Your task to perform on an android device: turn on bluetooth scan Image 0: 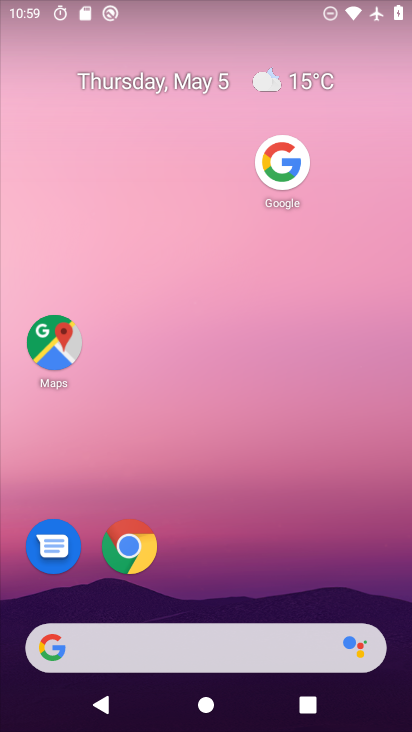
Step 0: drag from (185, 632) to (343, 45)
Your task to perform on an android device: turn on bluetooth scan Image 1: 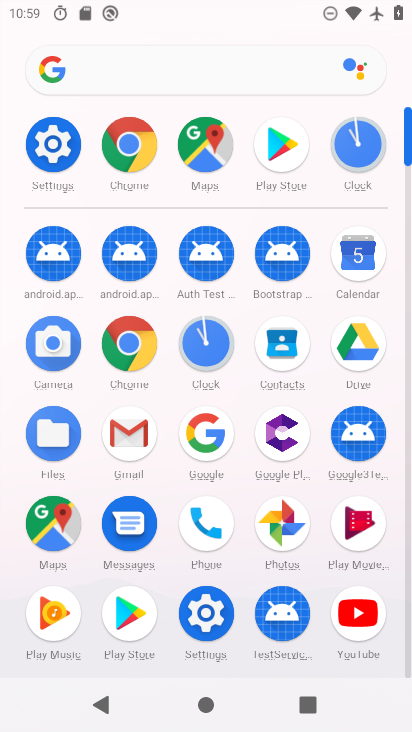
Step 1: click (54, 147)
Your task to perform on an android device: turn on bluetooth scan Image 2: 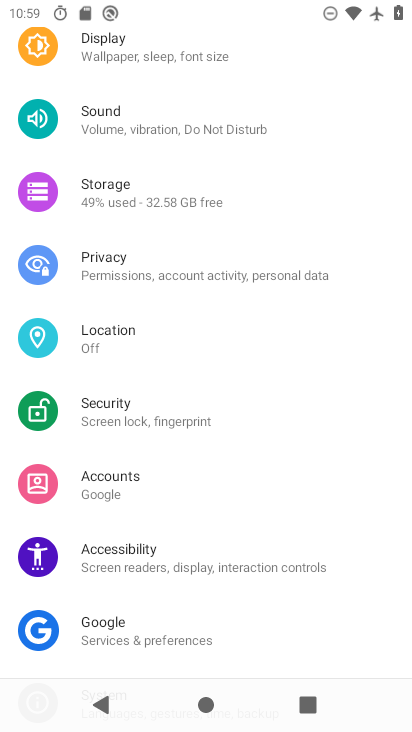
Step 2: drag from (212, 537) to (268, 382)
Your task to perform on an android device: turn on bluetooth scan Image 3: 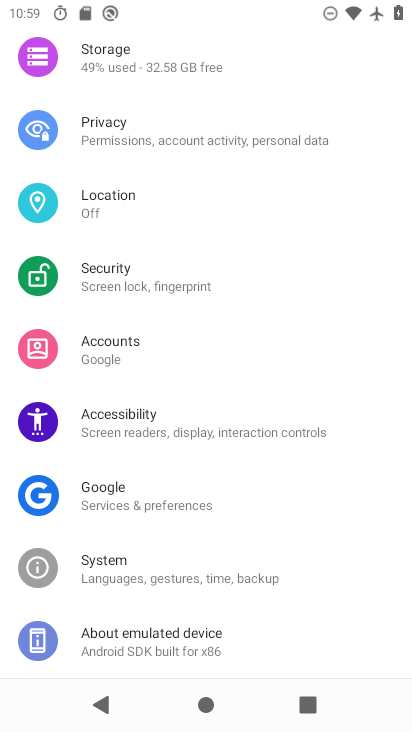
Step 3: click (110, 201)
Your task to perform on an android device: turn on bluetooth scan Image 4: 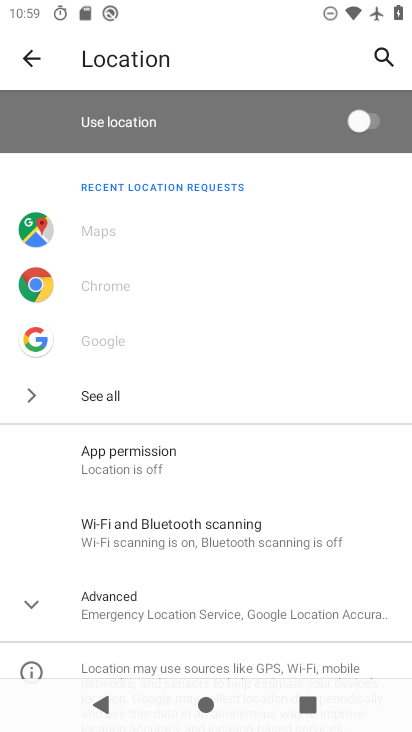
Step 4: click (173, 535)
Your task to perform on an android device: turn on bluetooth scan Image 5: 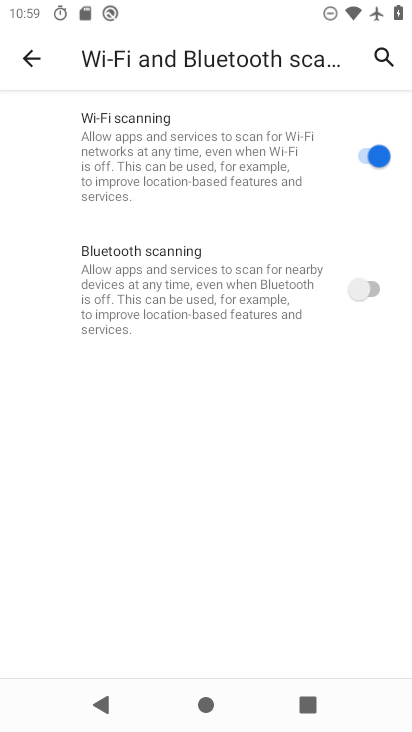
Step 5: click (375, 282)
Your task to perform on an android device: turn on bluetooth scan Image 6: 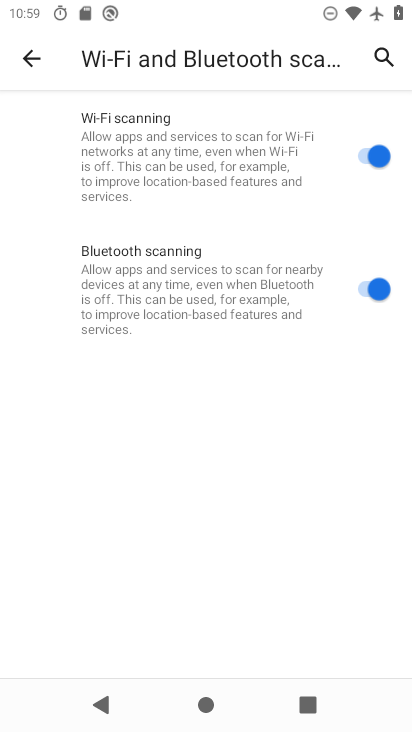
Step 6: task complete